Your task to perform on an android device: Open the Play Movies app and select the watchlist tab. Image 0: 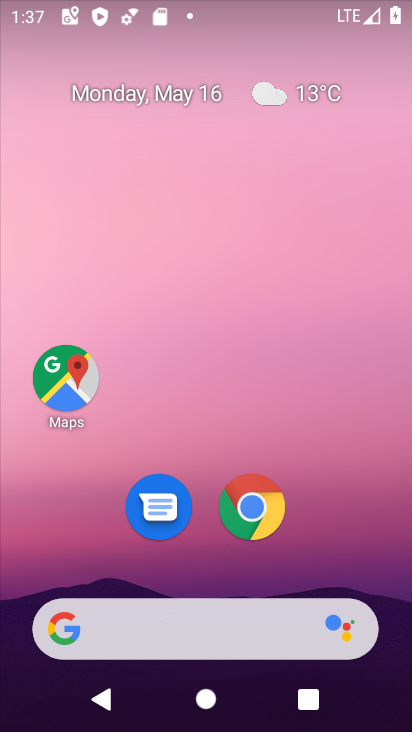
Step 0: drag from (343, 562) to (208, 57)
Your task to perform on an android device: Open the Play Movies app and select the watchlist tab. Image 1: 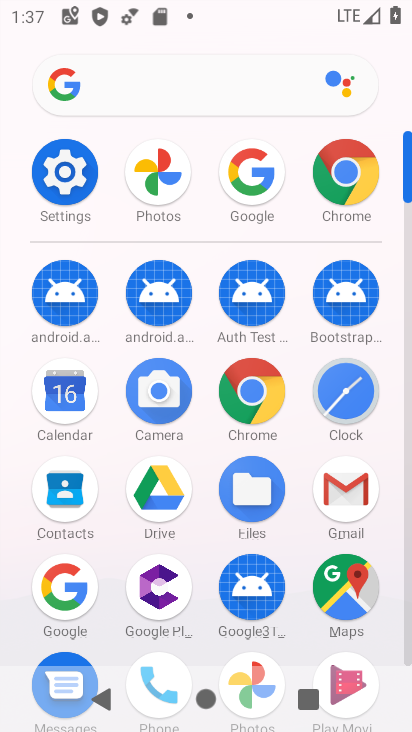
Step 1: click (349, 659)
Your task to perform on an android device: Open the Play Movies app and select the watchlist tab. Image 2: 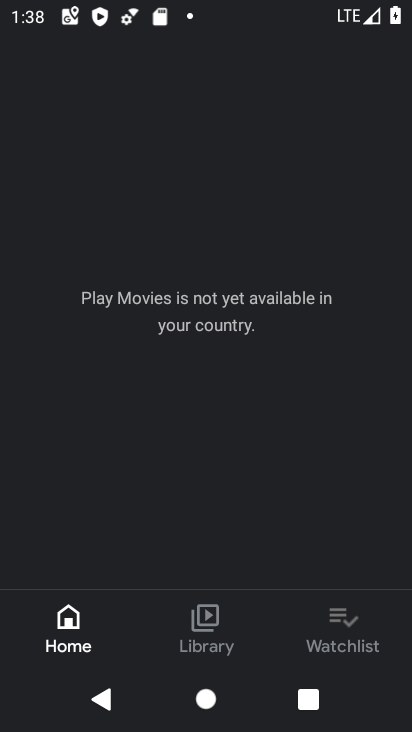
Step 2: click (348, 635)
Your task to perform on an android device: Open the Play Movies app and select the watchlist tab. Image 3: 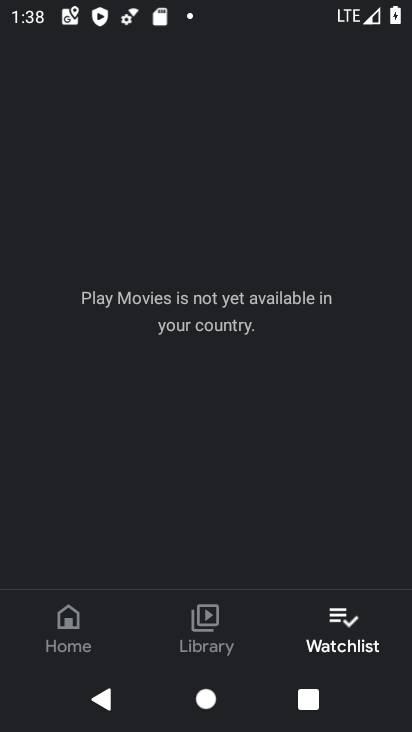
Step 3: task complete